Your task to perform on an android device: Open maps Image 0: 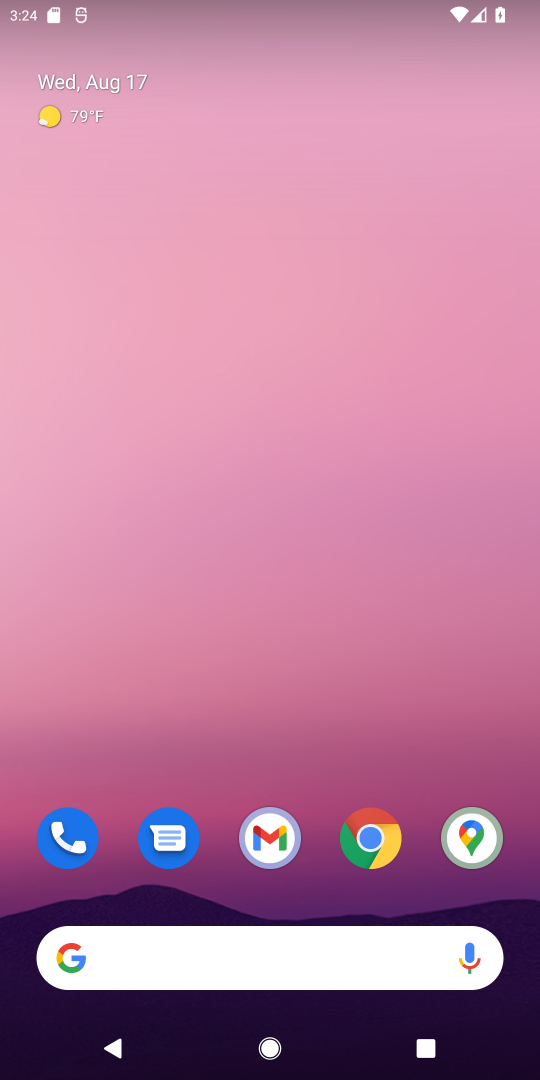
Step 0: click (448, 850)
Your task to perform on an android device: Open maps Image 1: 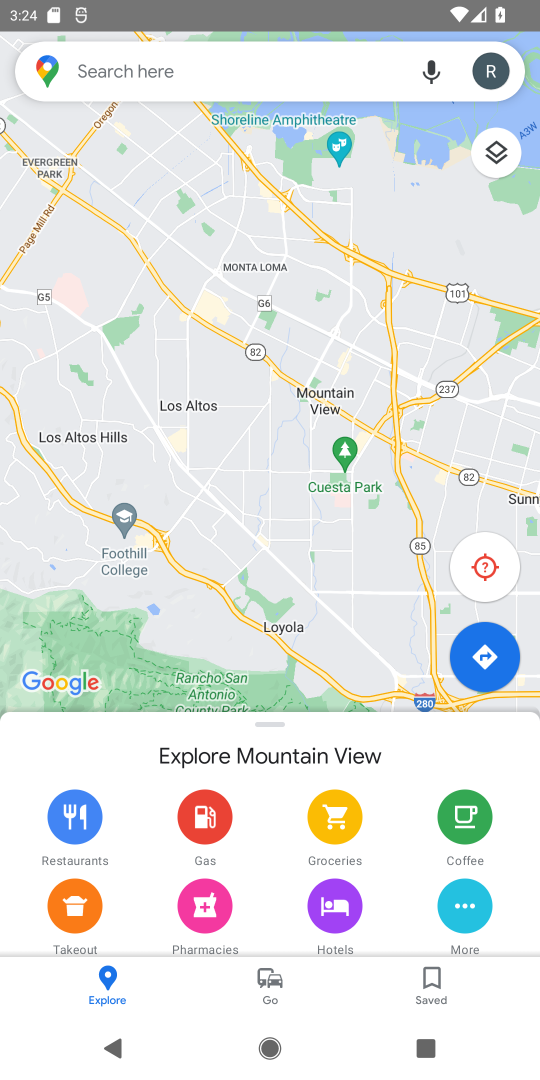
Step 1: task complete